Your task to perform on an android device: Search for macbook on amazon.com, select the first entry, add it to the cart, then select checkout. Image 0: 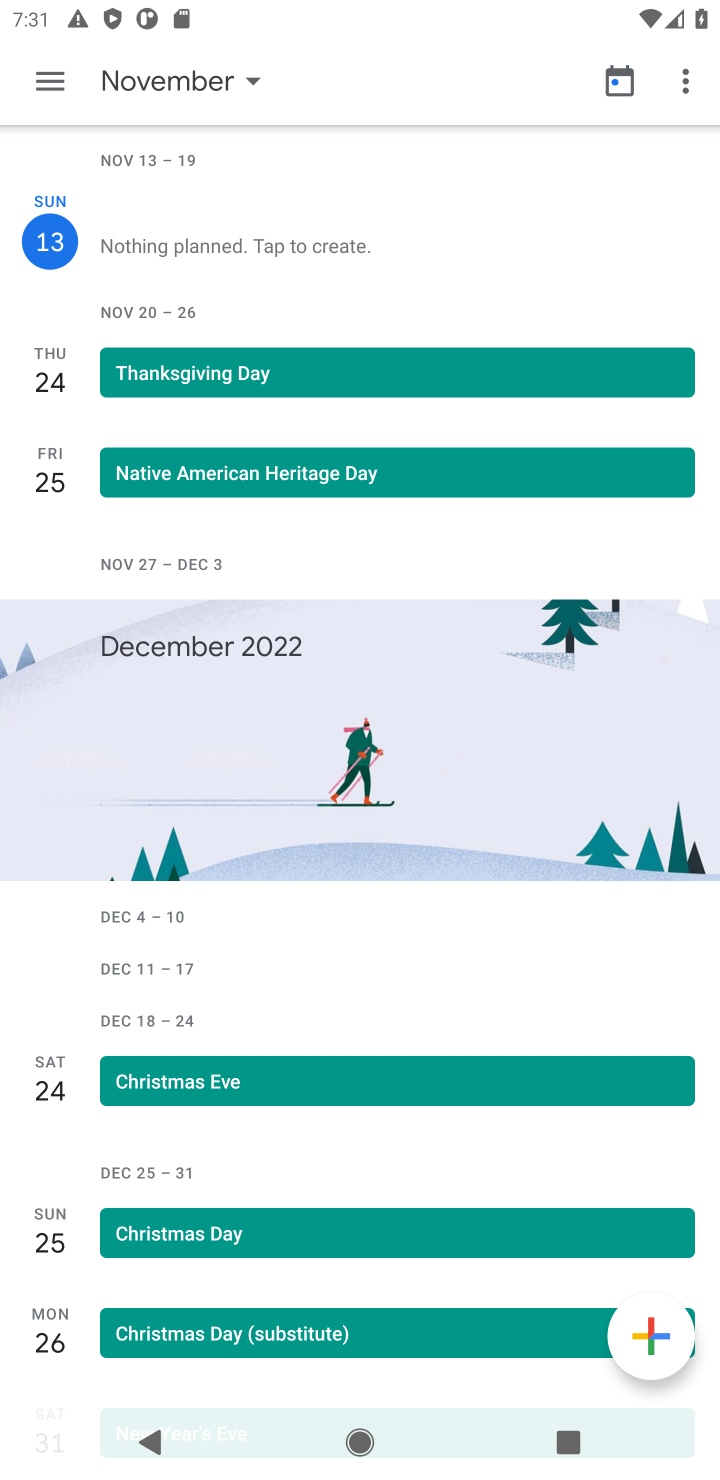
Step 0: press home button
Your task to perform on an android device: Search for macbook on amazon.com, select the first entry, add it to the cart, then select checkout. Image 1: 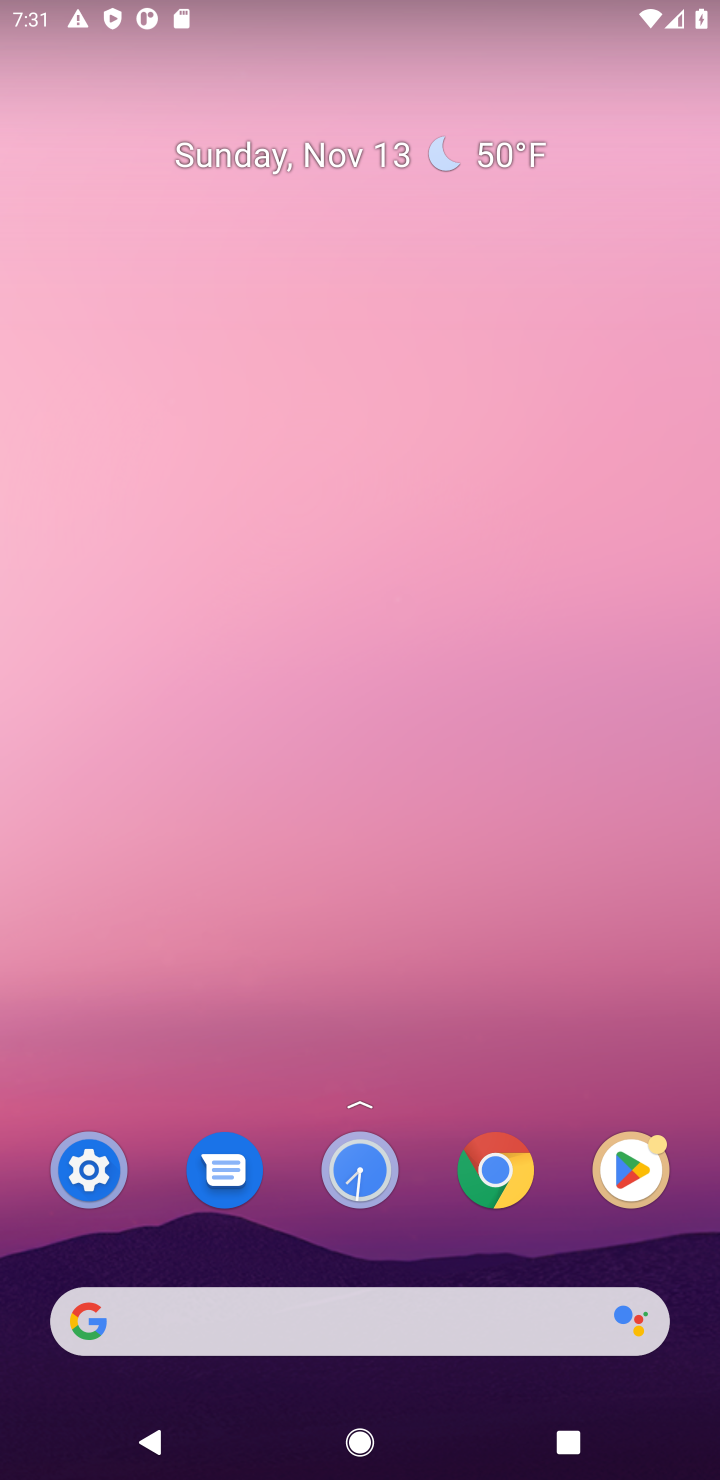
Step 1: click (252, 1314)
Your task to perform on an android device: Search for macbook on amazon.com, select the first entry, add it to the cart, then select checkout. Image 2: 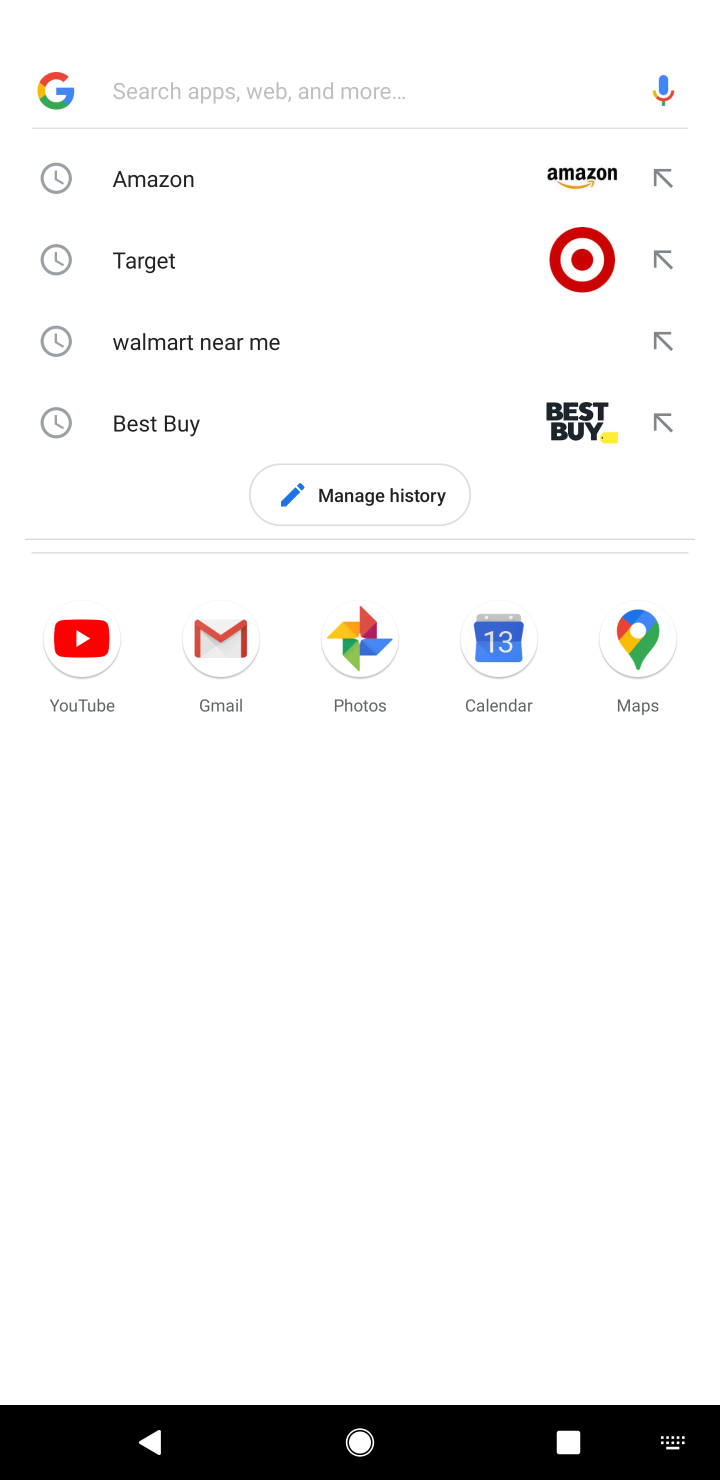
Step 2: click (209, 197)
Your task to perform on an android device: Search for macbook on amazon.com, select the first entry, add it to the cart, then select checkout. Image 3: 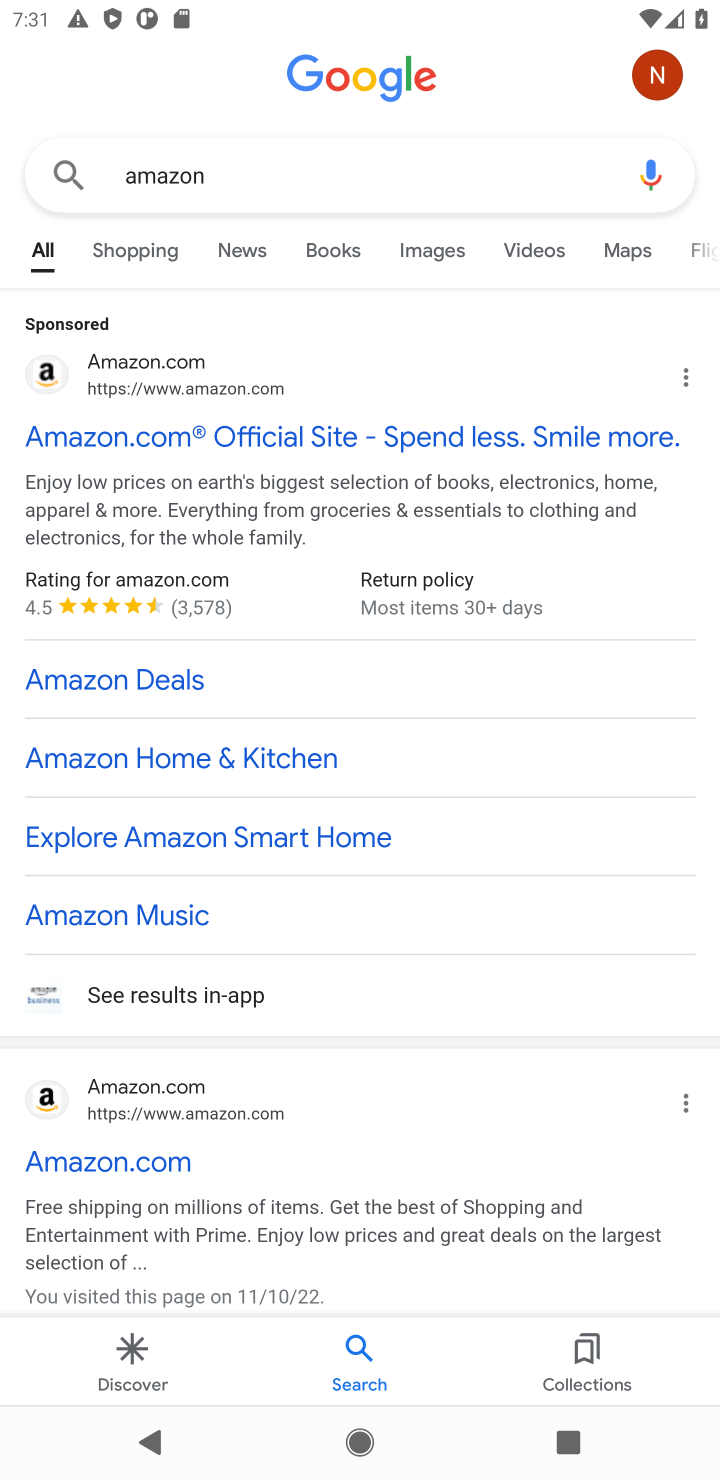
Step 3: click (124, 461)
Your task to perform on an android device: Search for macbook on amazon.com, select the first entry, add it to the cart, then select checkout. Image 4: 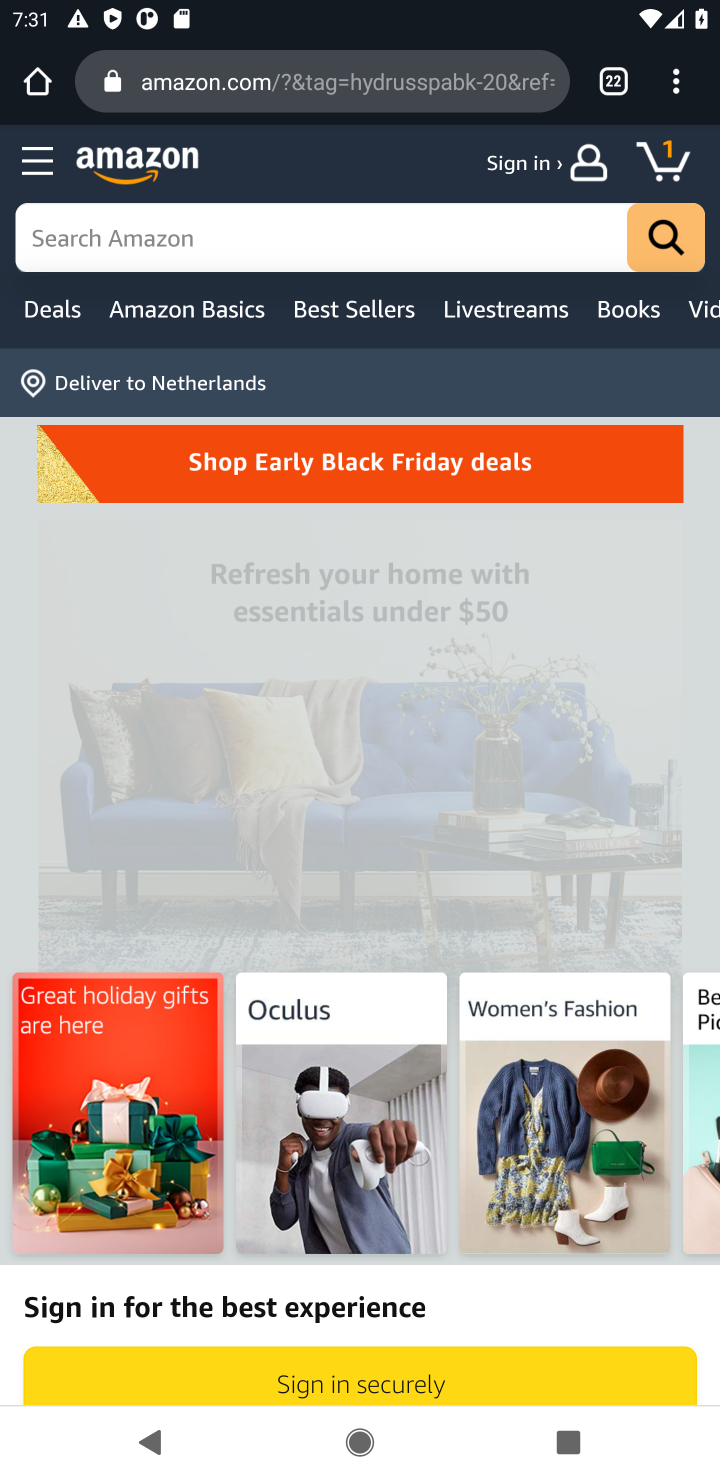
Step 4: click (663, 166)
Your task to perform on an android device: Search for macbook on amazon.com, select the first entry, add it to the cart, then select checkout. Image 5: 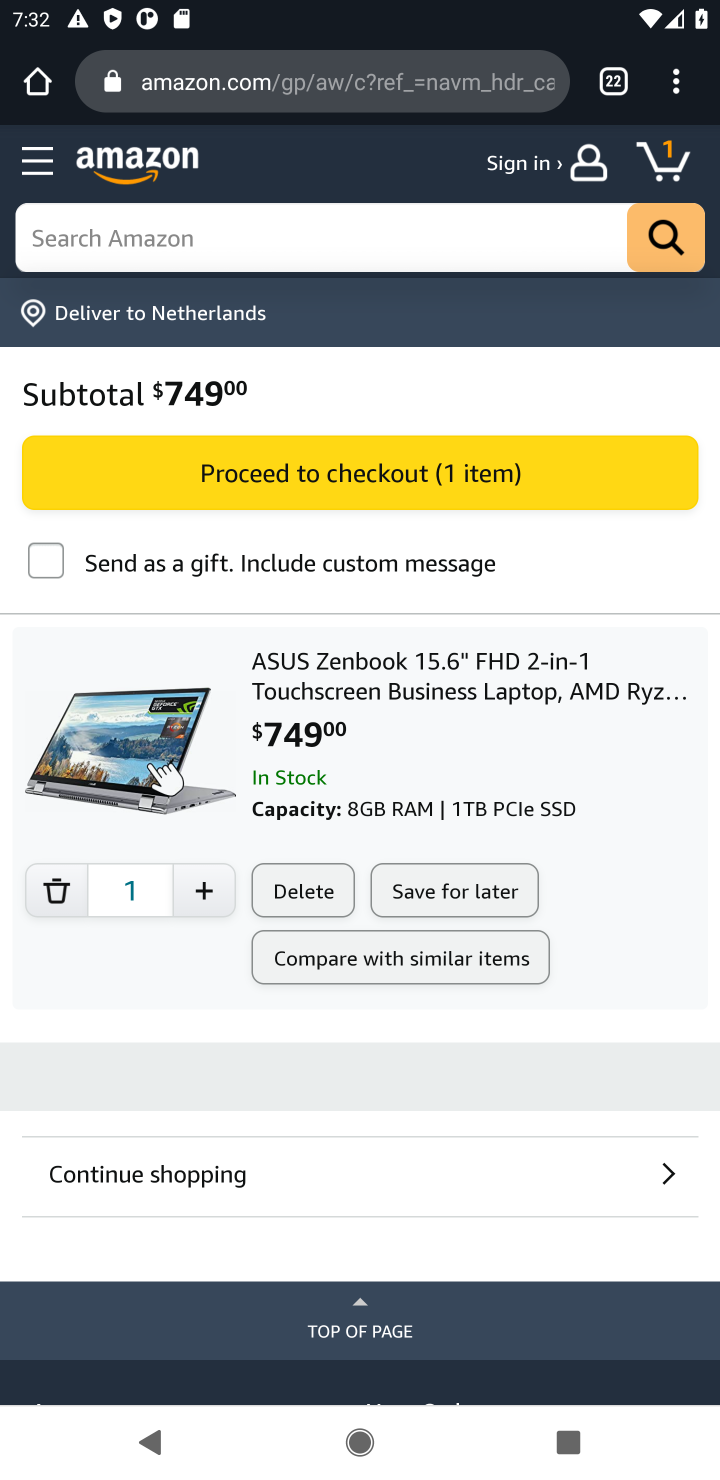
Step 5: task complete